Your task to perform on an android device: open wifi settings Image 0: 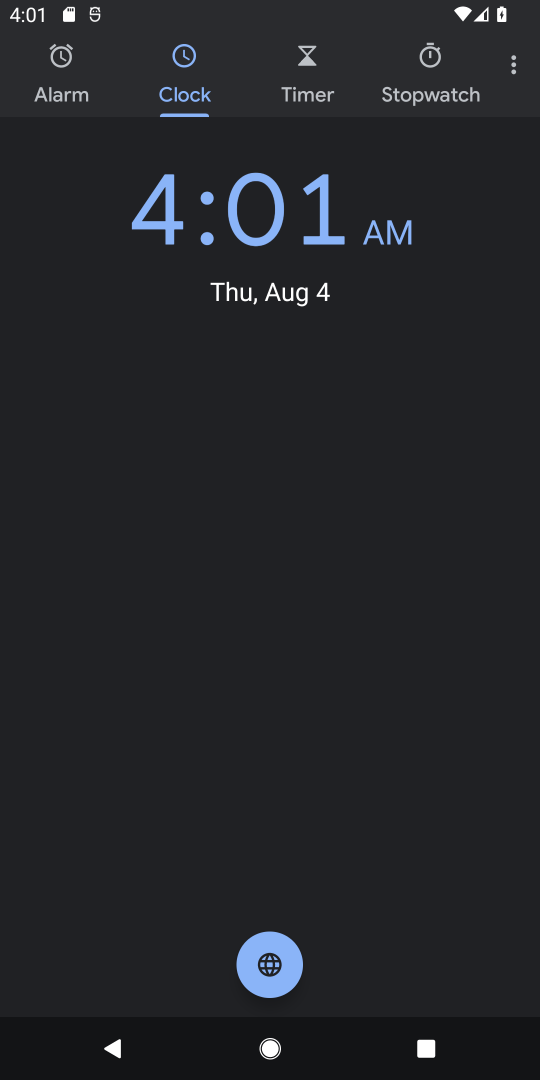
Step 0: press home button
Your task to perform on an android device: open wifi settings Image 1: 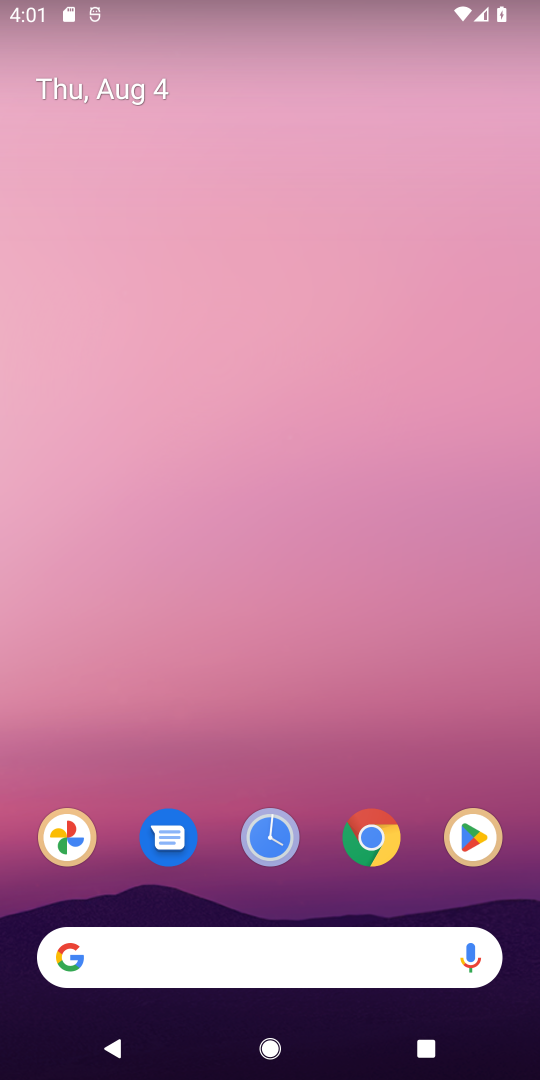
Step 1: drag from (275, 767) to (269, 58)
Your task to perform on an android device: open wifi settings Image 2: 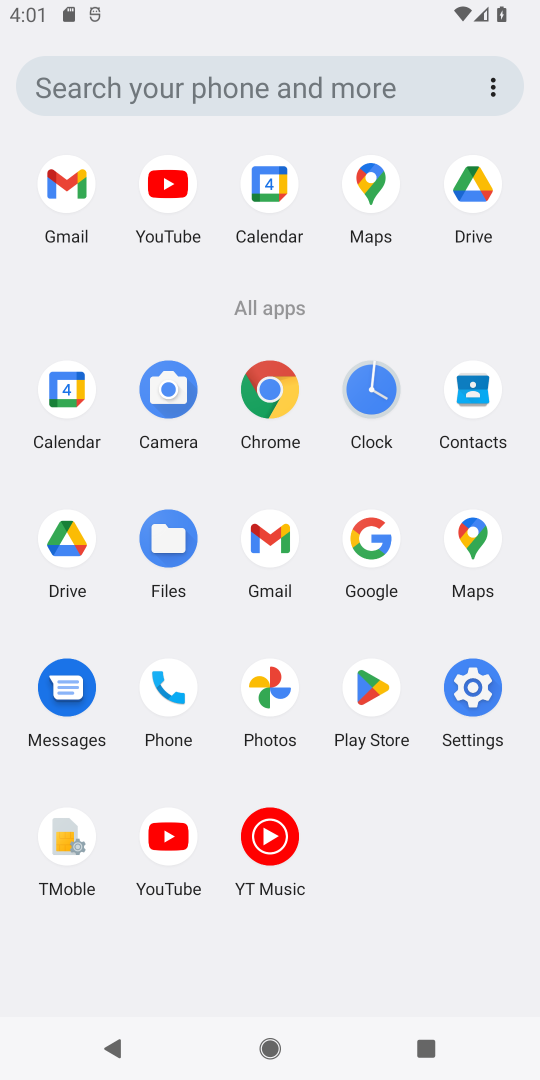
Step 2: click (466, 677)
Your task to perform on an android device: open wifi settings Image 3: 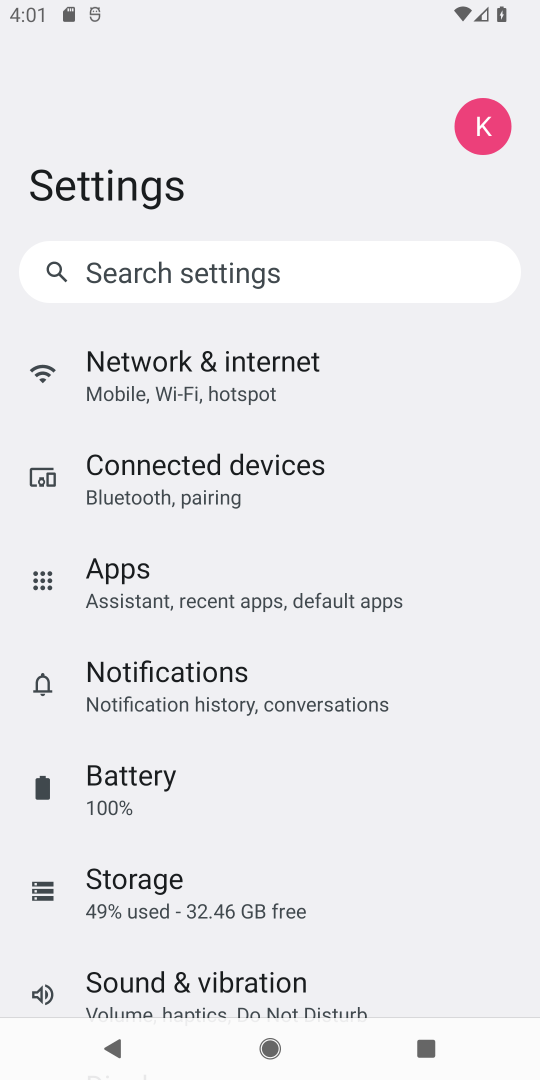
Step 3: click (183, 382)
Your task to perform on an android device: open wifi settings Image 4: 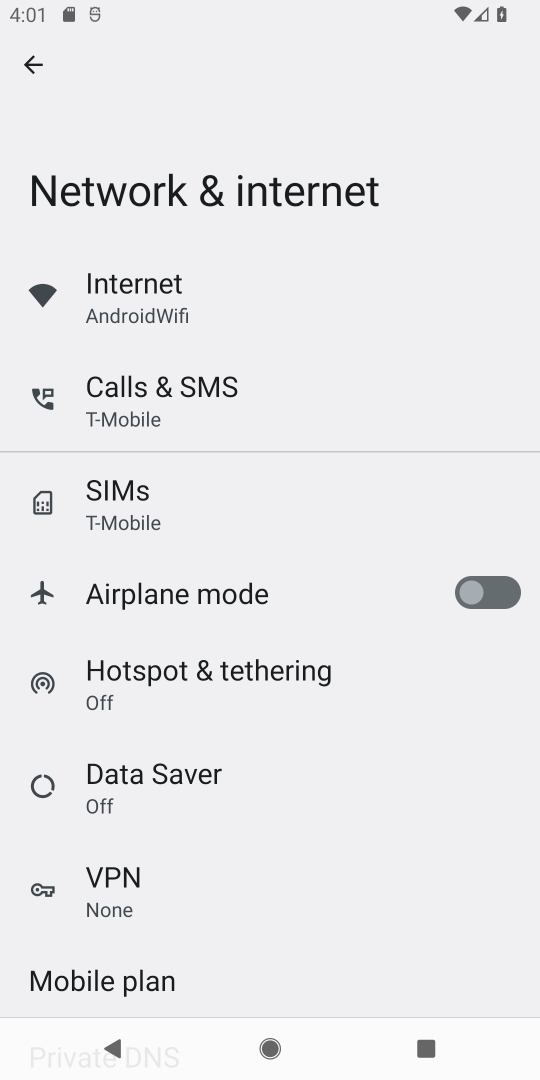
Step 4: click (184, 281)
Your task to perform on an android device: open wifi settings Image 5: 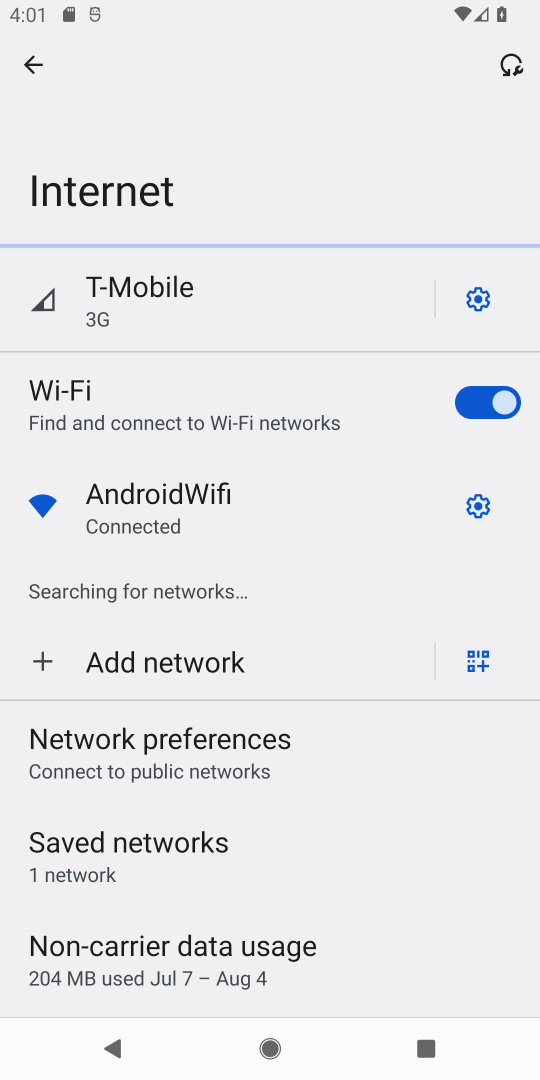
Step 5: task complete